Your task to perform on an android device: Do I have any events this weekend? Image 0: 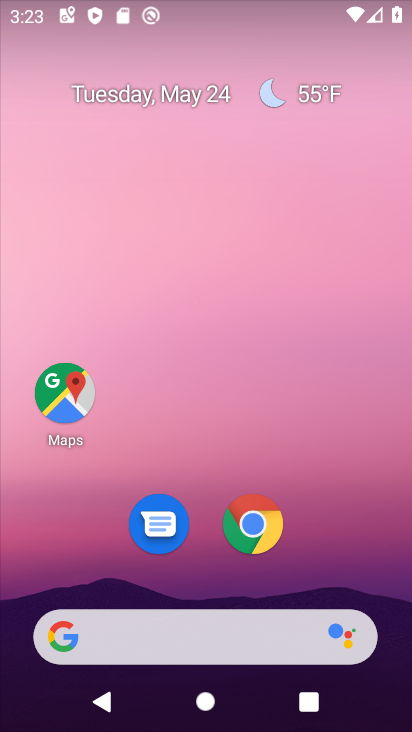
Step 0: drag from (313, 504) to (302, 28)
Your task to perform on an android device: Do I have any events this weekend? Image 1: 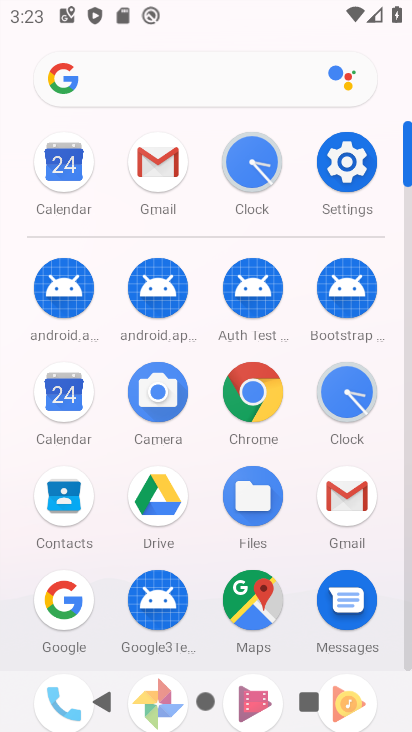
Step 1: click (70, 149)
Your task to perform on an android device: Do I have any events this weekend? Image 2: 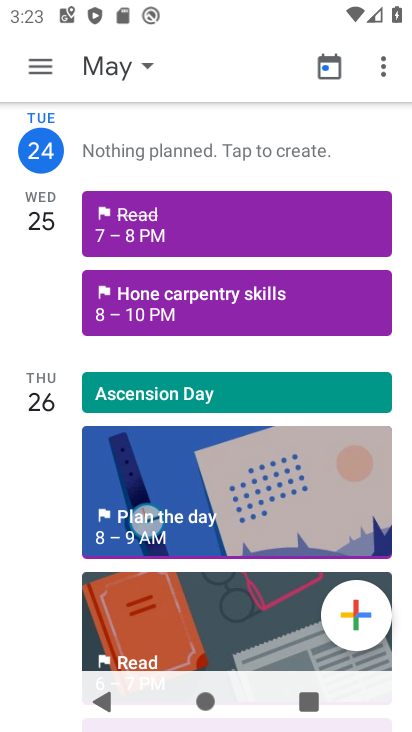
Step 2: task complete